Your task to perform on an android device: add a label to a message in the gmail app Image 0: 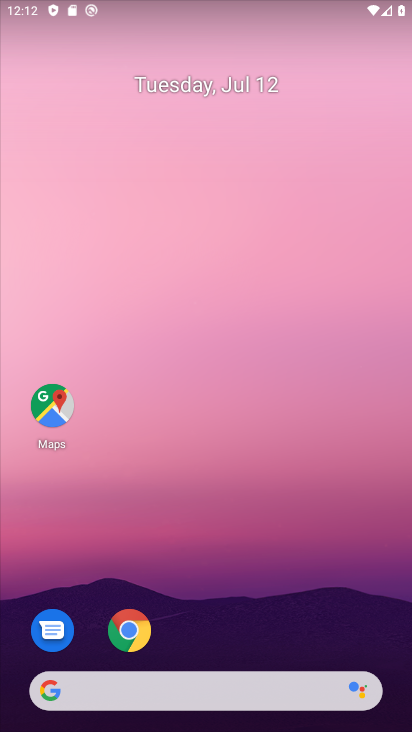
Step 0: press home button
Your task to perform on an android device: add a label to a message in the gmail app Image 1: 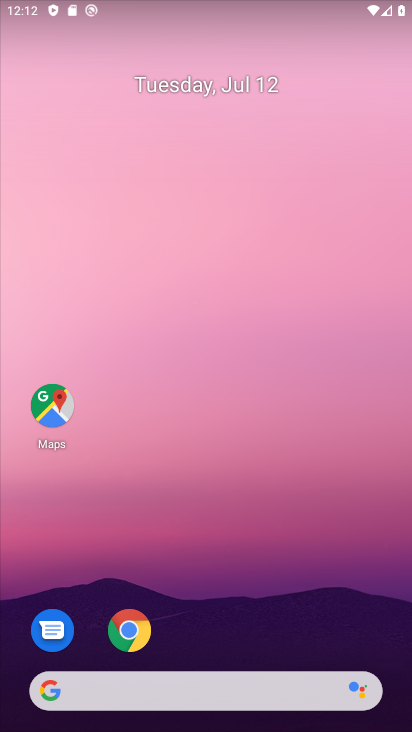
Step 1: drag from (374, 633) to (337, 164)
Your task to perform on an android device: add a label to a message in the gmail app Image 2: 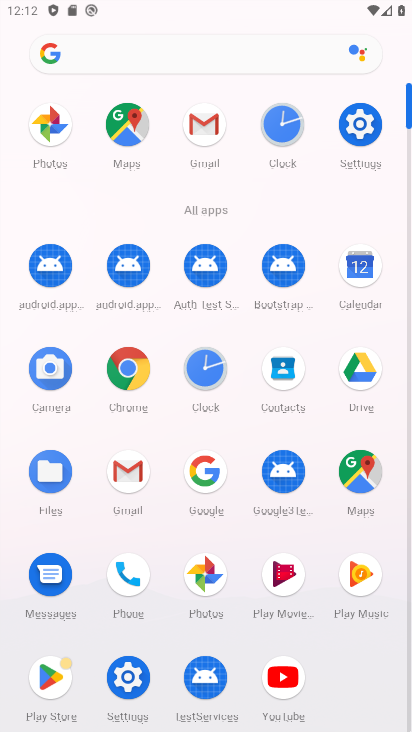
Step 2: click (126, 471)
Your task to perform on an android device: add a label to a message in the gmail app Image 3: 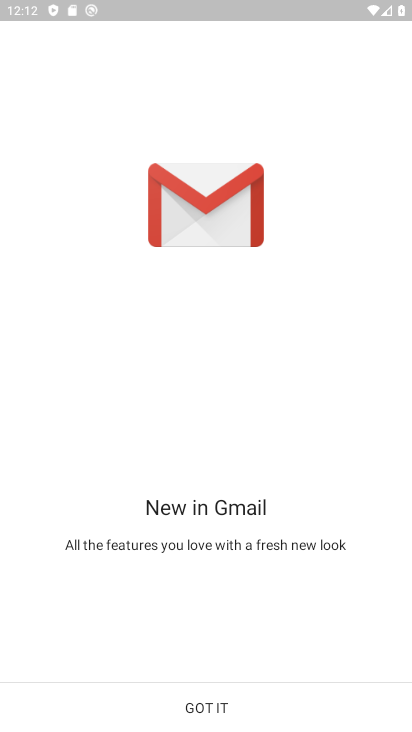
Step 3: click (209, 713)
Your task to perform on an android device: add a label to a message in the gmail app Image 4: 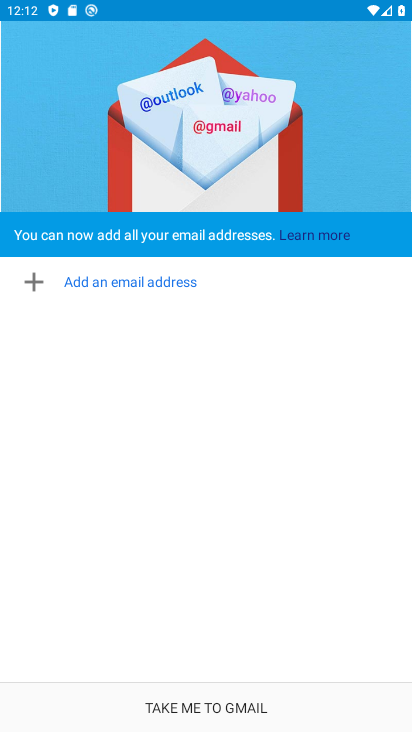
Step 4: click (220, 703)
Your task to perform on an android device: add a label to a message in the gmail app Image 5: 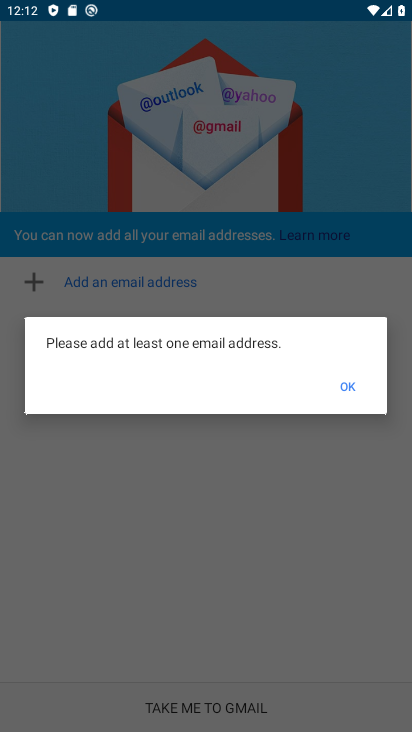
Step 5: click (359, 390)
Your task to perform on an android device: add a label to a message in the gmail app Image 6: 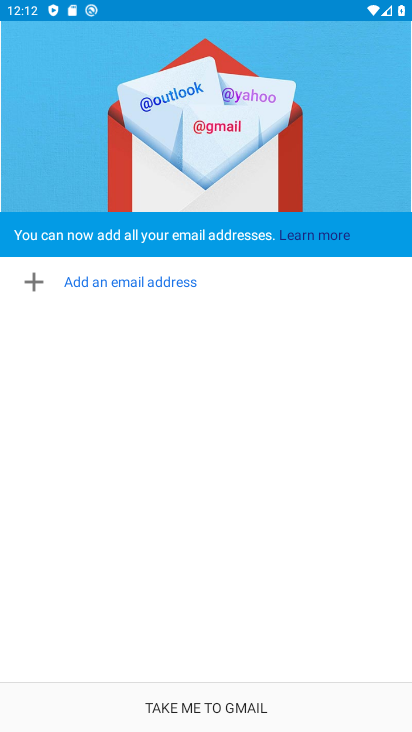
Step 6: click (214, 703)
Your task to perform on an android device: add a label to a message in the gmail app Image 7: 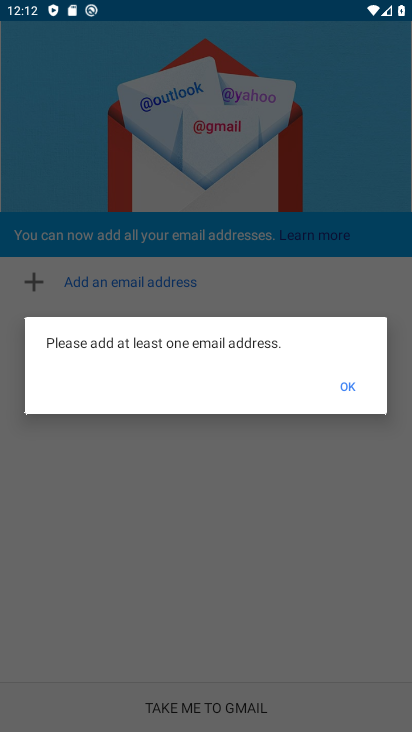
Step 7: task complete